Your task to perform on an android device: Search for the best coffee tables on Crate & Barrel Image 0: 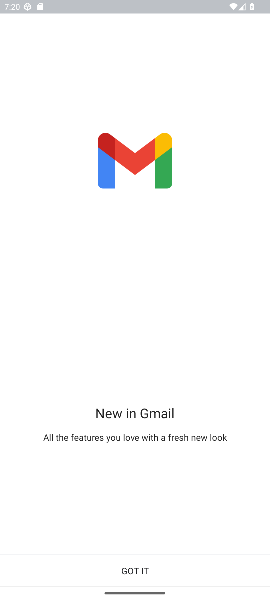
Step 0: press home button
Your task to perform on an android device: Search for the best coffee tables on Crate & Barrel Image 1: 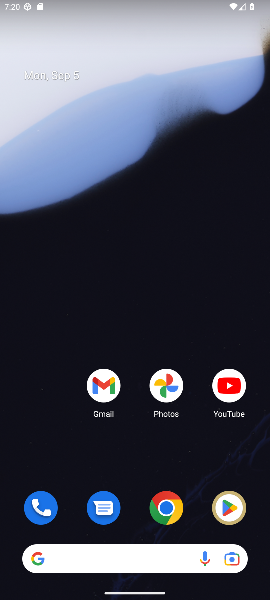
Step 1: click (168, 510)
Your task to perform on an android device: Search for the best coffee tables on Crate & Barrel Image 2: 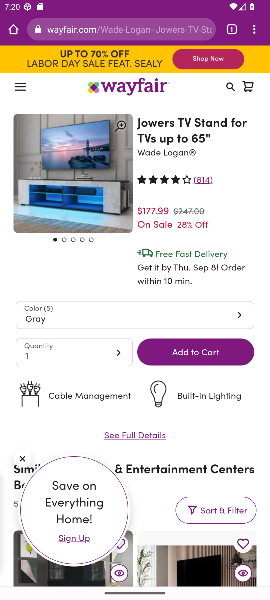
Step 2: click (121, 29)
Your task to perform on an android device: Search for the best coffee tables on Crate & Barrel Image 3: 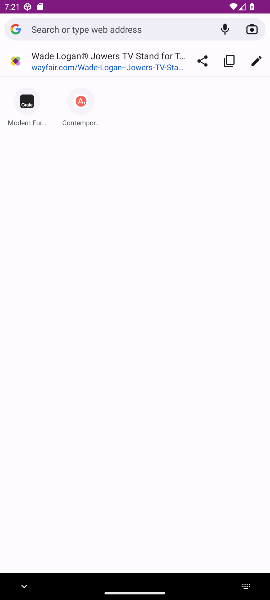
Step 3: type "Crate & Barrel"
Your task to perform on an android device: Search for the best coffee tables on Crate & Barrel Image 4: 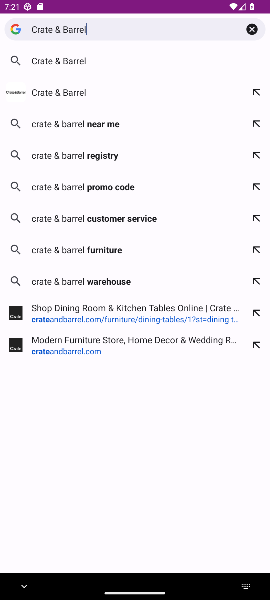
Step 4: click (44, 68)
Your task to perform on an android device: Search for the best coffee tables on Crate & Barrel Image 5: 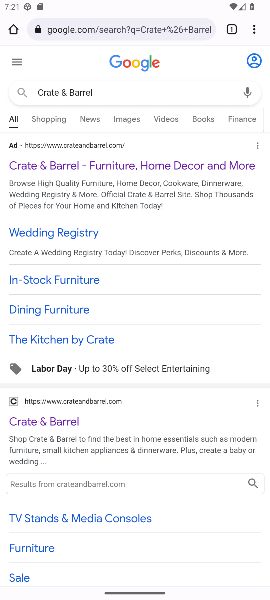
Step 5: click (38, 430)
Your task to perform on an android device: Search for the best coffee tables on Crate & Barrel Image 6: 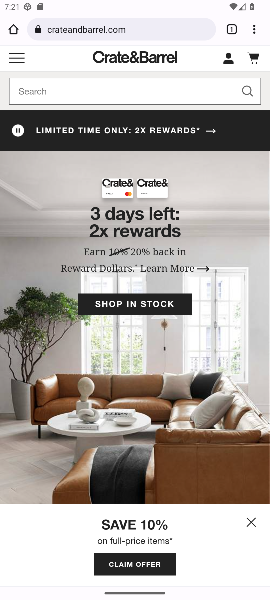
Step 6: click (87, 96)
Your task to perform on an android device: Search for the best coffee tables on Crate & Barrel Image 7: 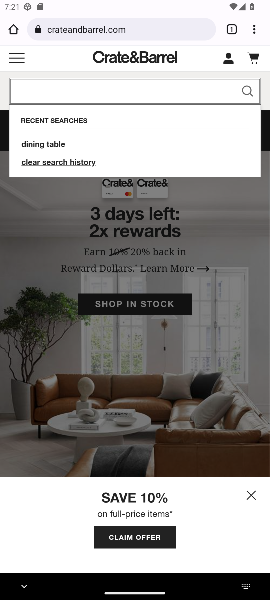
Step 7: type " best coffee tables "
Your task to perform on an android device: Search for the best coffee tables on Crate & Barrel Image 8: 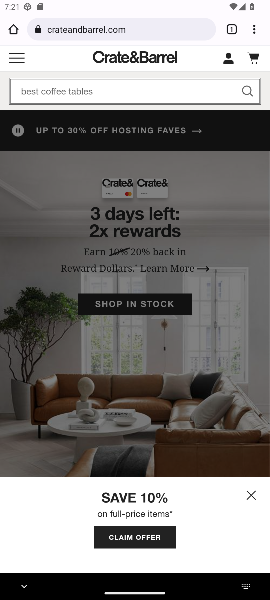
Step 8: click (245, 92)
Your task to perform on an android device: Search for the best coffee tables on Crate & Barrel Image 9: 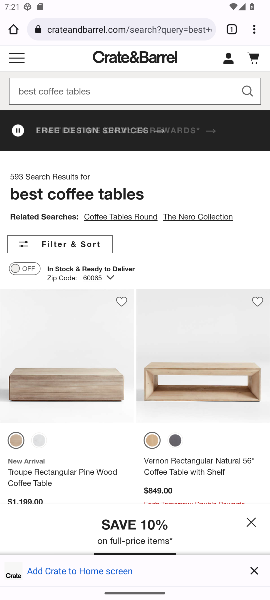
Step 9: task complete